Your task to perform on an android device: Open Wikipedia Image 0: 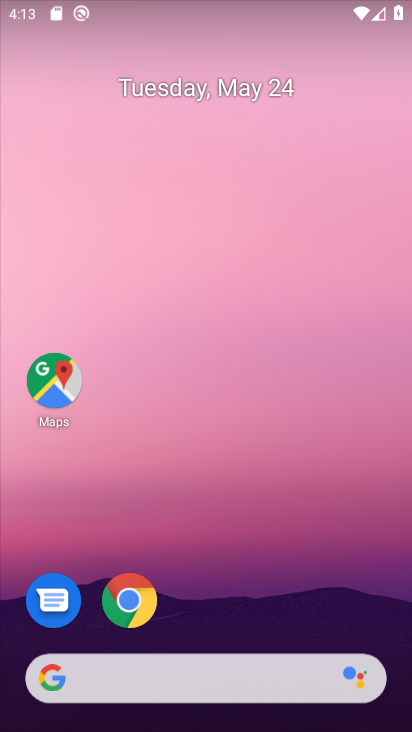
Step 0: click (150, 619)
Your task to perform on an android device: Open Wikipedia Image 1: 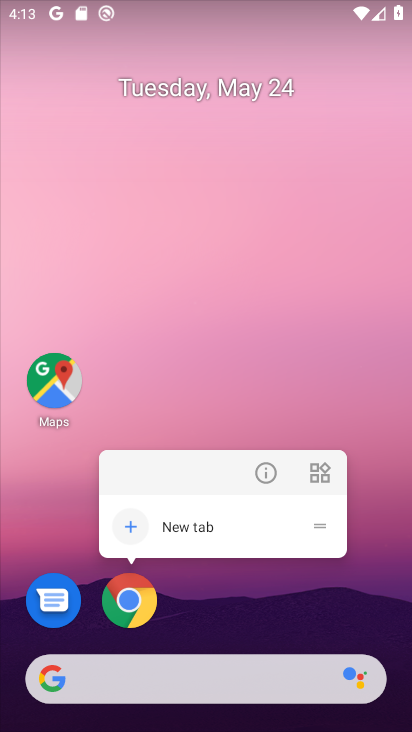
Step 1: click (143, 616)
Your task to perform on an android device: Open Wikipedia Image 2: 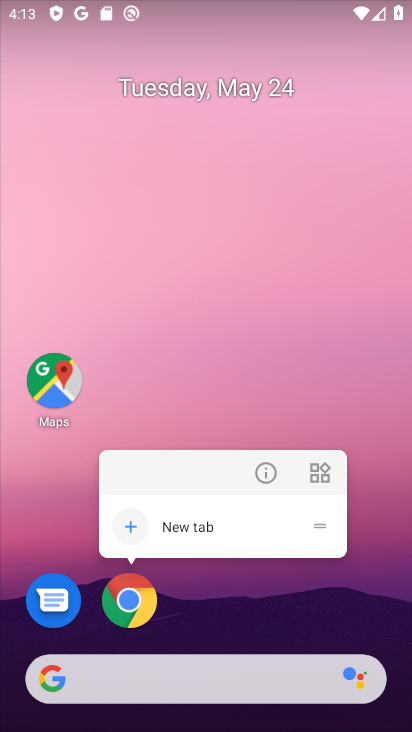
Step 2: click (152, 605)
Your task to perform on an android device: Open Wikipedia Image 3: 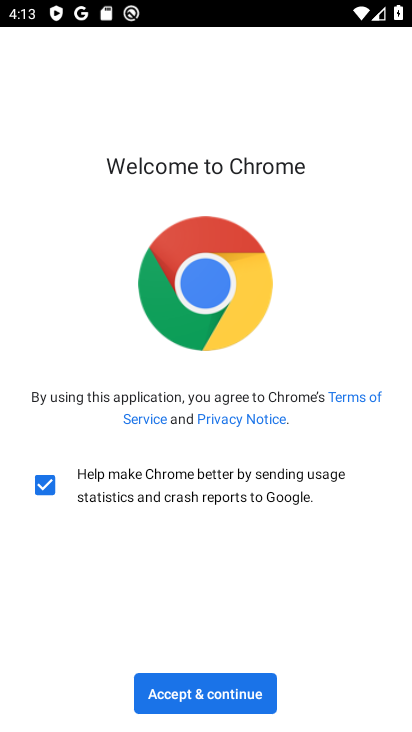
Step 3: click (230, 685)
Your task to perform on an android device: Open Wikipedia Image 4: 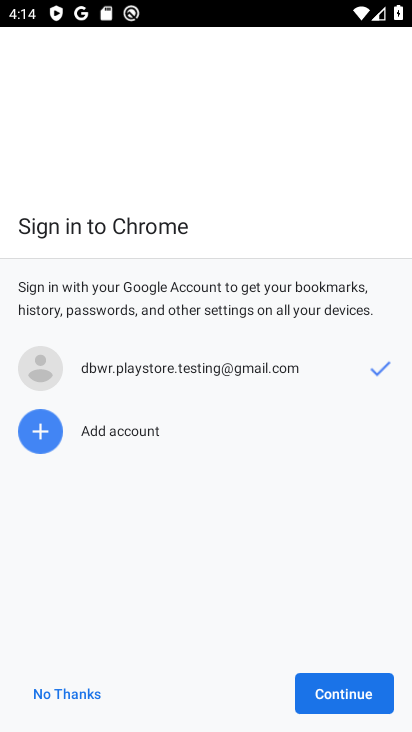
Step 4: click (234, 688)
Your task to perform on an android device: Open Wikipedia Image 5: 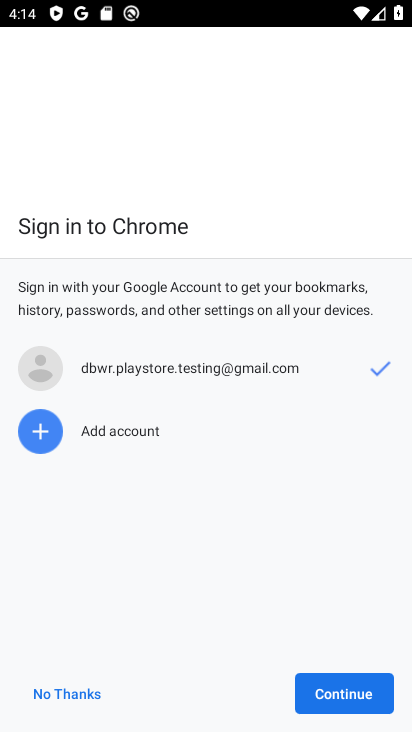
Step 5: click (308, 692)
Your task to perform on an android device: Open Wikipedia Image 6: 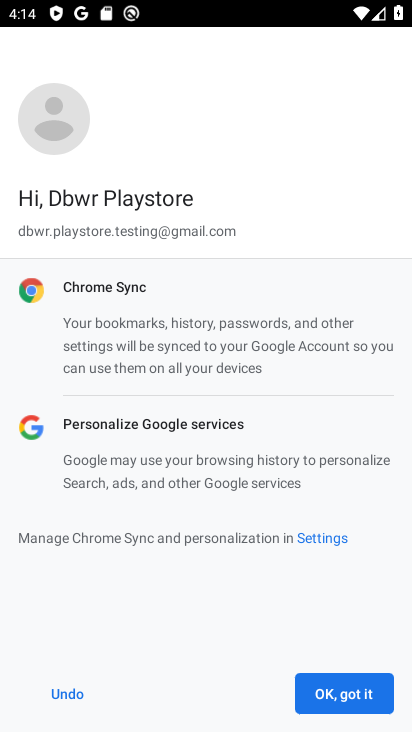
Step 6: click (342, 694)
Your task to perform on an android device: Open Wikipedia Image 7: 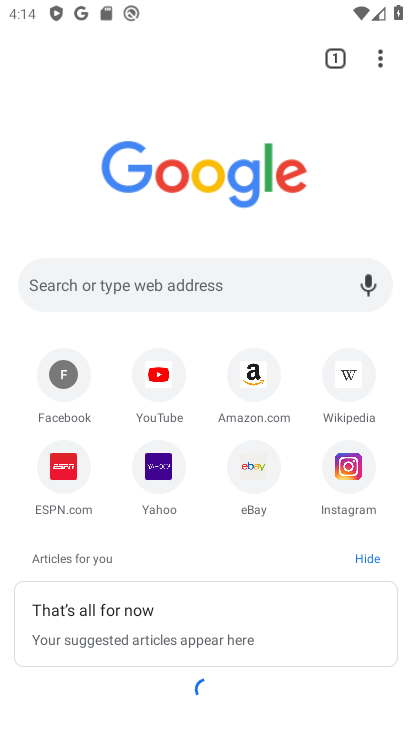
Step 7: click (352, 380)
Your task to perform on an android device: Open Wikipedia Image 8: 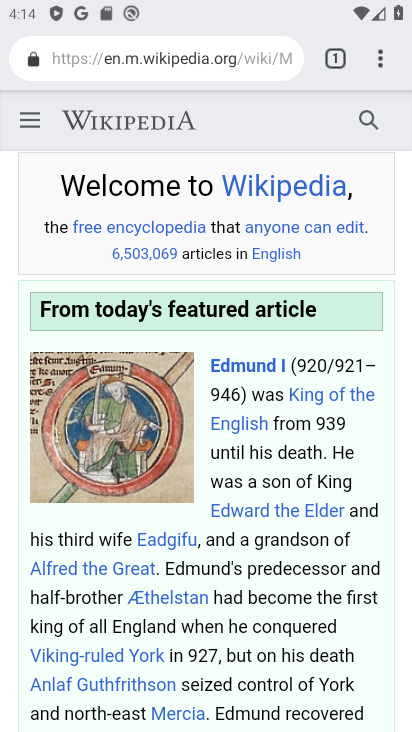
Step 8: task complete